Your task to perform on an android device: remove spam from my inbox in the gmail app Image 0: 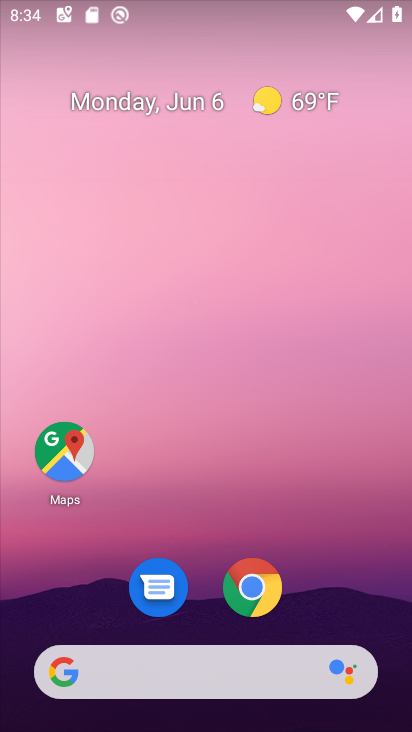
Step 0: click (334, 126)
Your task to perform on an android device: remove spam from my inbox in the gmail app Image 1: 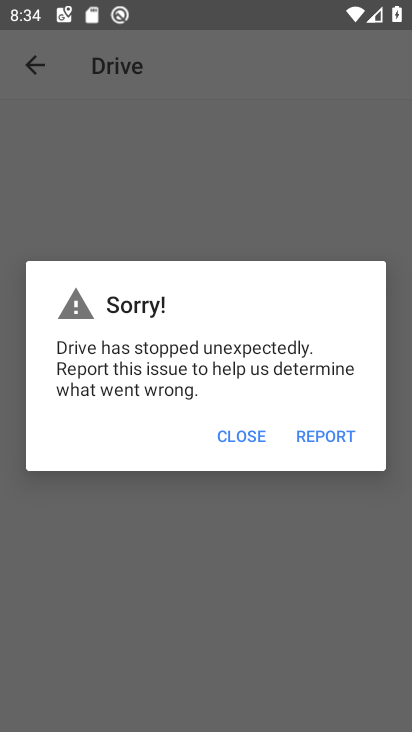
Step 1: press home button
Your task to perform on an android device: remove spam from my inbox in the gmail app Image 2: 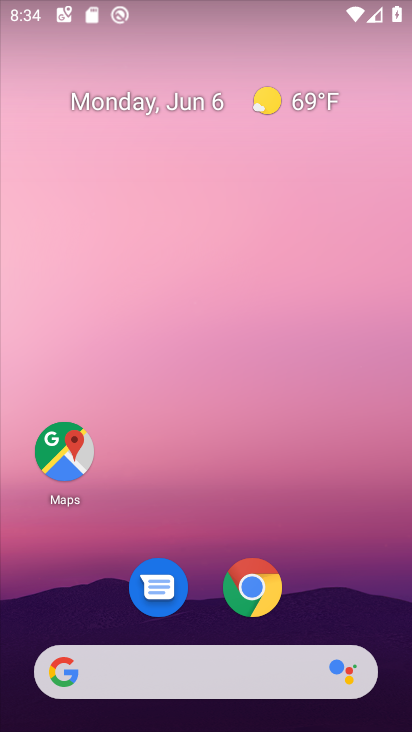
Step 2: drag from (370, 637) to (336, 150)
Your task to perform on an android device: remove spam from my inbox in the gmail app Image 3: 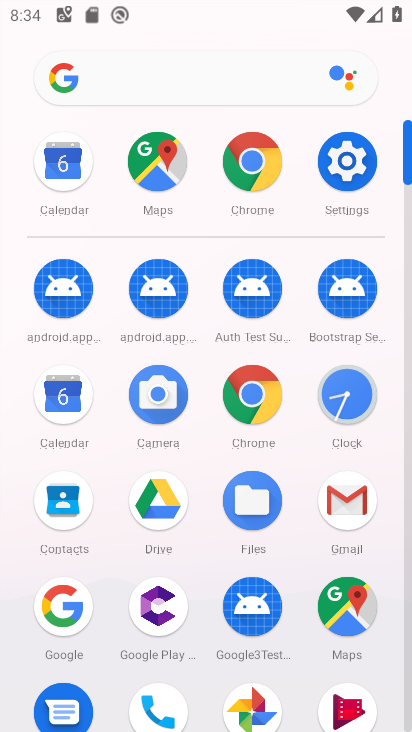
Step 3: click (326, 502)
Your task to perform on an android device: remove spam from my inbox in the gmail app Image 4: 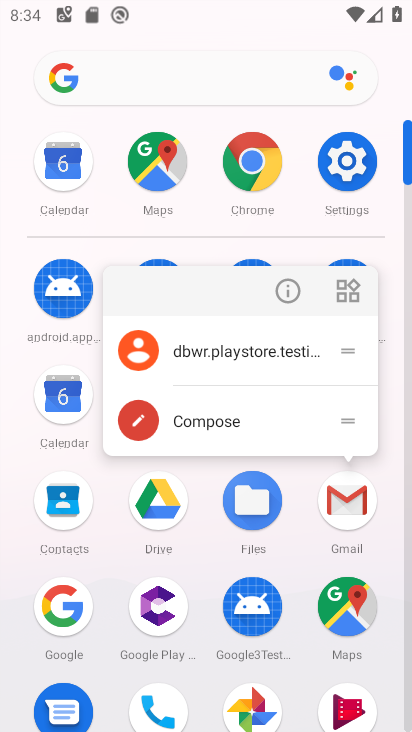
Step 4: click (332, 522)
Your task to perform on an android device: remove spam from my inbox in the gmail app Image 5: 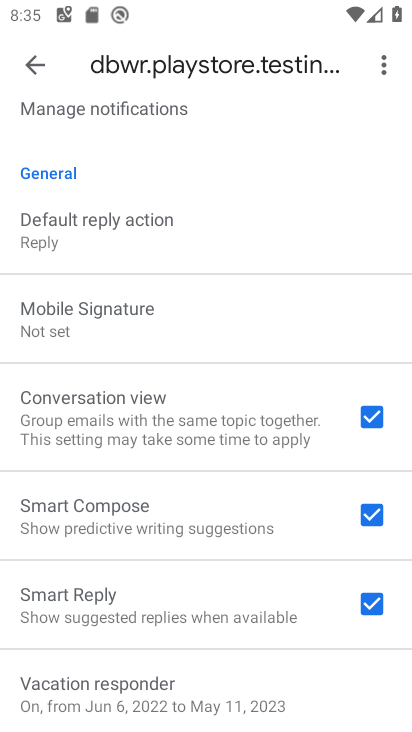
Step 5: drag from (216, 212) to (228, 397)
Your task to perform on an android device: remove spam from my inbox in the gmail app Image 6: 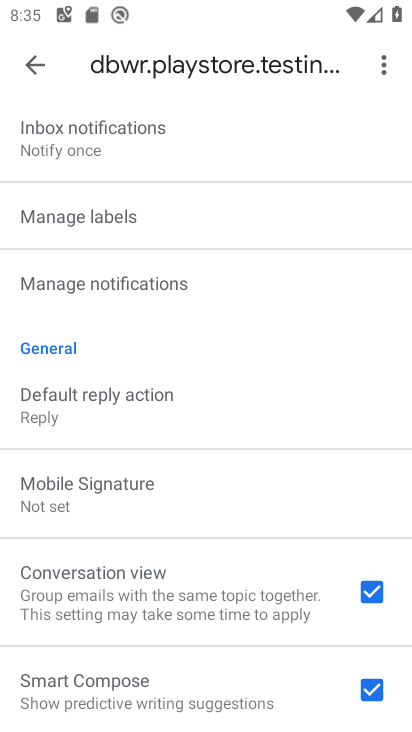
Step 6: click (30, 65)
Your task to perform on an android device: remove spam from my inbox in the gmail app Image 7: 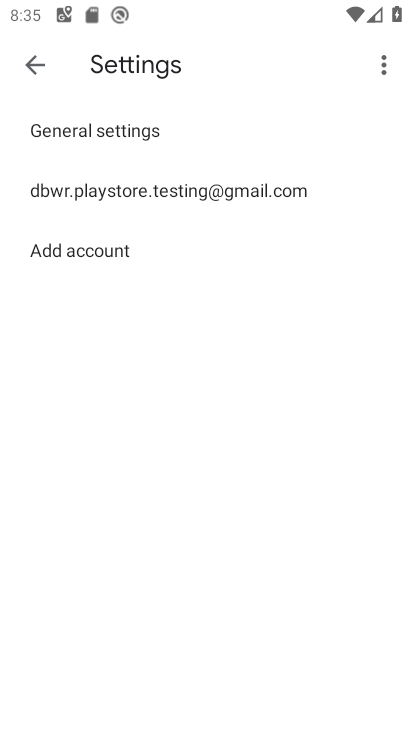
Step 7: click (31, 65)
Your task to perform on an android device: remove spam from my inbox in the gmail app Image 8: 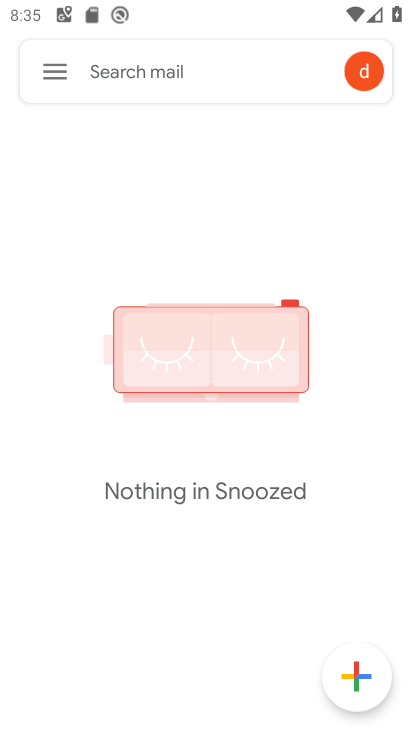
Step 8: click (49, 75)
Your task to perform on an android device: remove spam from my inbox in the gmail app Image 9: 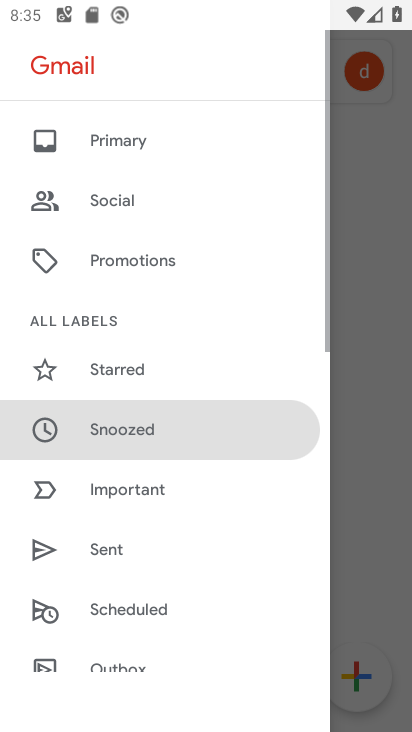
Step 9: drag from (181, 560) to (231, 201)
Your task to perform on an android device: remove spam from my inbox in the gmail app Image 10: 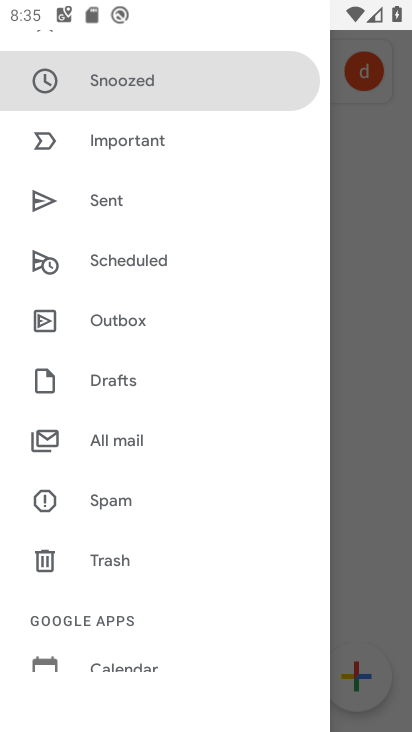
Step 10: click (154, 503)
Your task to perform on an android device: remove spam from my inbox in the gmail app Image 11: 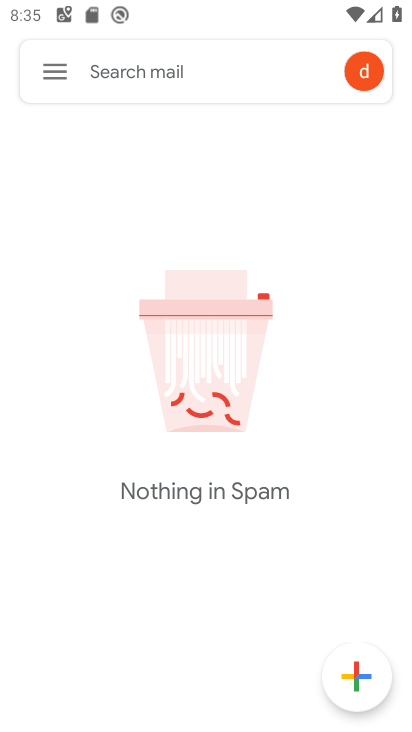
Step 11: task complete